Your task to perform on an android device: delete location history Image 0: 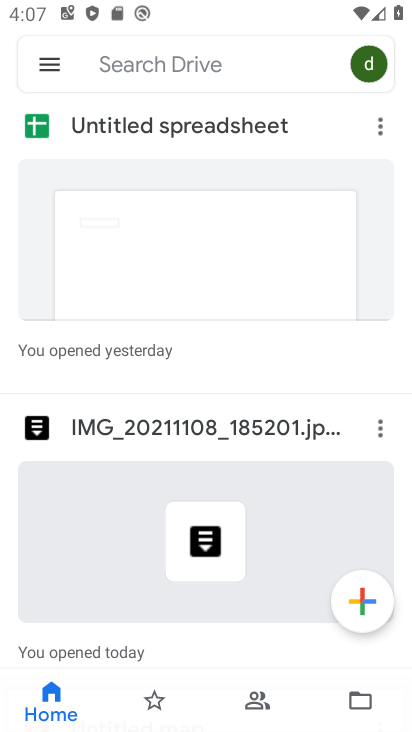
Step 0: press home button
Your task to perform on an android device: delete location history Image 1: 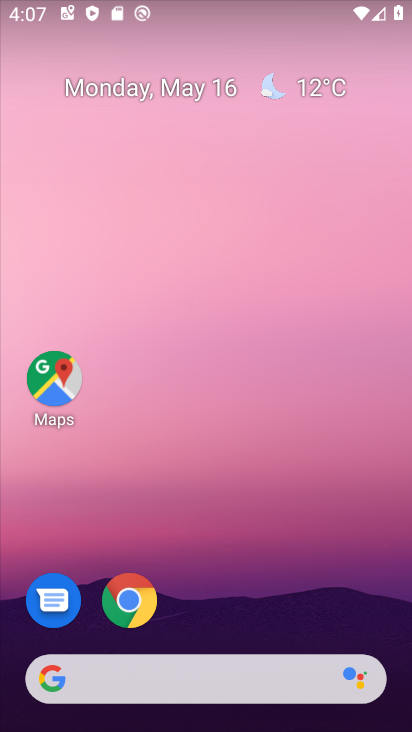
Step 1: drag from (215, 661) to (207, 264)
Your task to perform on an android device: delete location history Image 2: 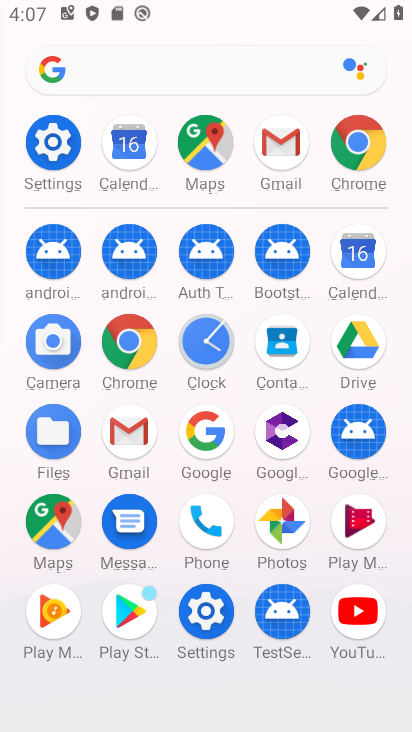
Step 2: click (30, 141)
Your task to perform on an android device: delete location history Image 3: 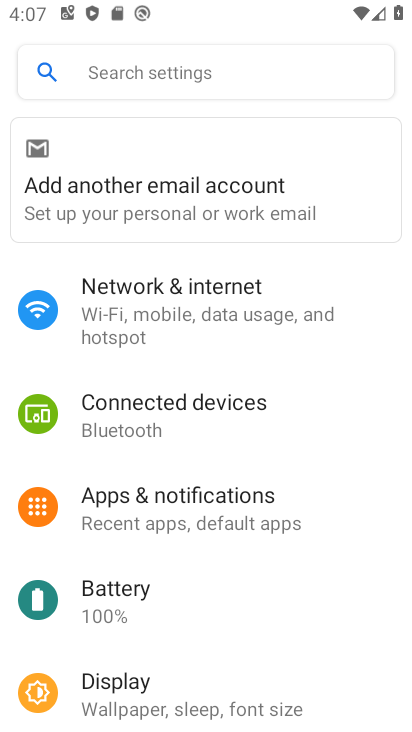
Step 3: drag from (181, 680) to (175, 225)
Your task to perform on an android device: delete location history Image 4: 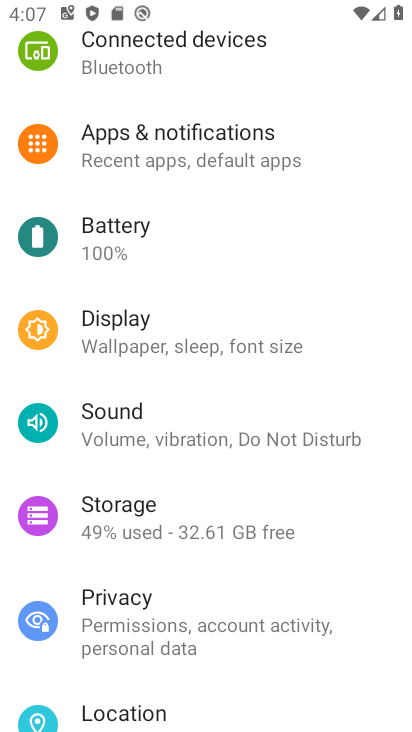
Step 4: drag from (130, 685) to (135, 364)
Your task to perform on an android device: delete location history Image 5: 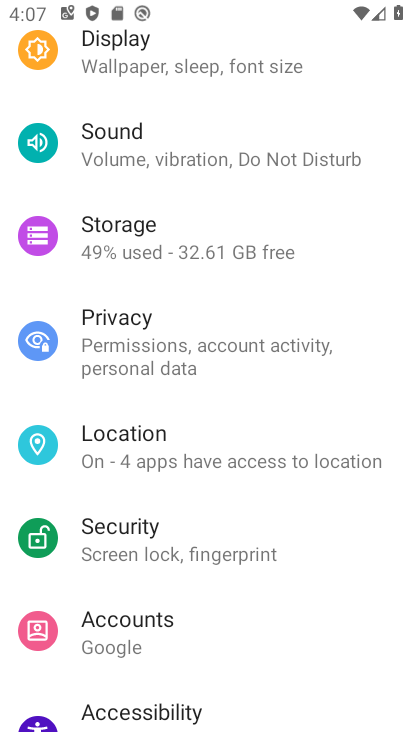
Step 5: click (118, 453)
Your task to perform on an android device: delete location history Image 6: 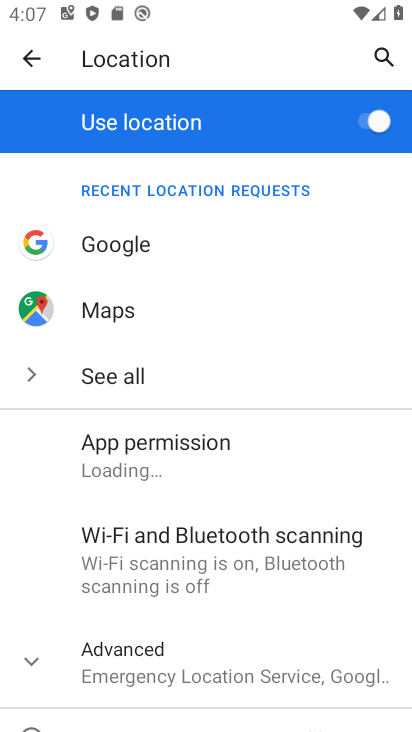
Step 6: click (159, 660)
Your task to perform on an android device: delete location history Image 7: 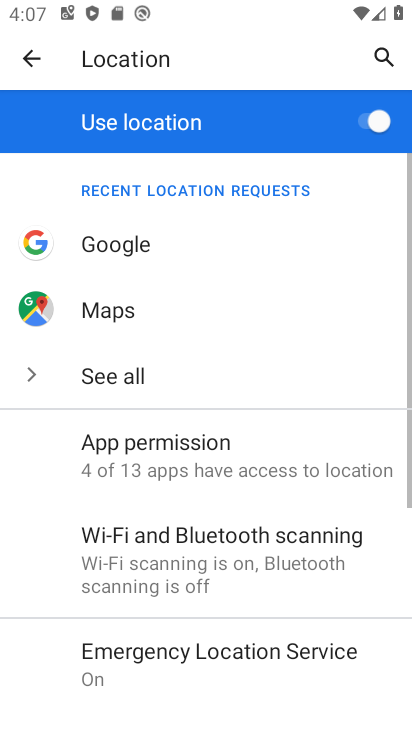
Step 7: drag from (158, 698) to (182, 289)
Your task to perform on an android device: delete location history Image 8: 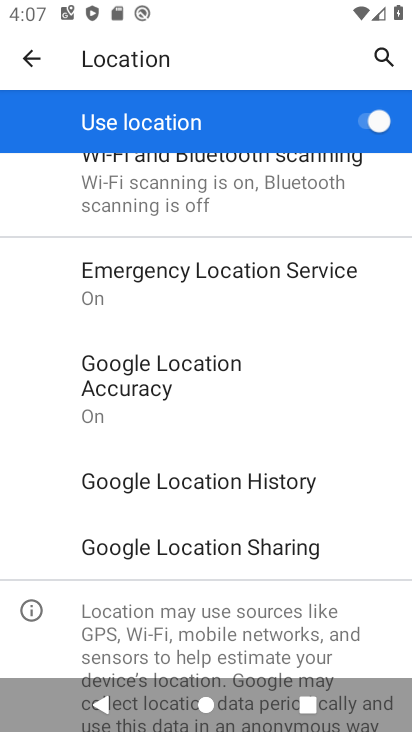
Step 8: drag from (224, 612) to (222, 288)
Your task to perform on an android device: delete location history Image 9: 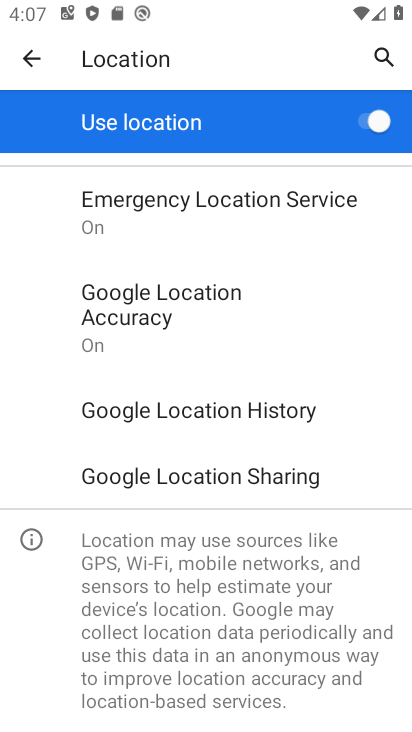
Step 9: click (222, 415)
Your task to perform on an android device: delete location history Image 10: 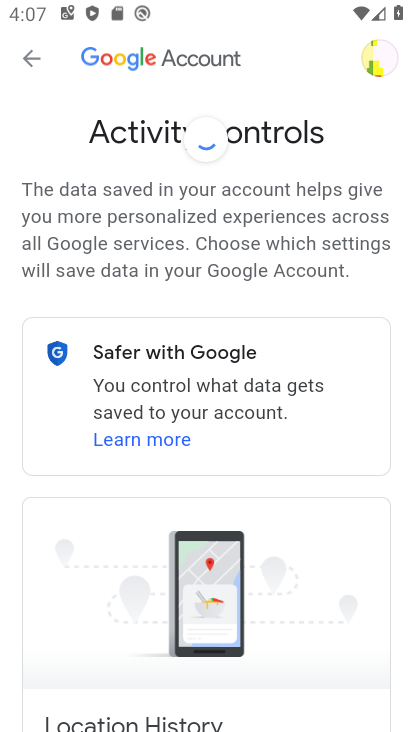
Step 10: drag from (209, 679) to (199, 237)
Your task to perform on an android device: delete location history Image 11: 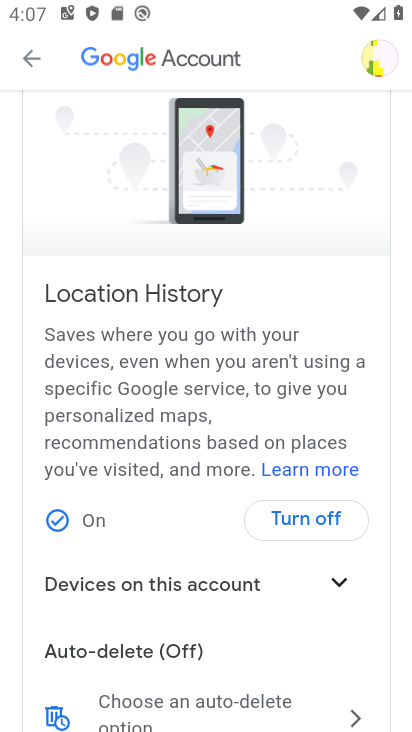
Step 11: drag from (259, 685) to (256, 278)
Your task to perform on an android device: delete location history Image 12: 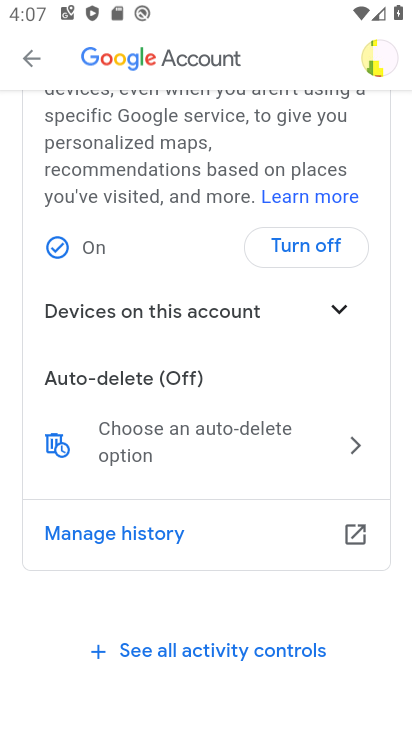
Step 12: click (139, 451)
Your task to perform on an android device: delete location history Image 13: 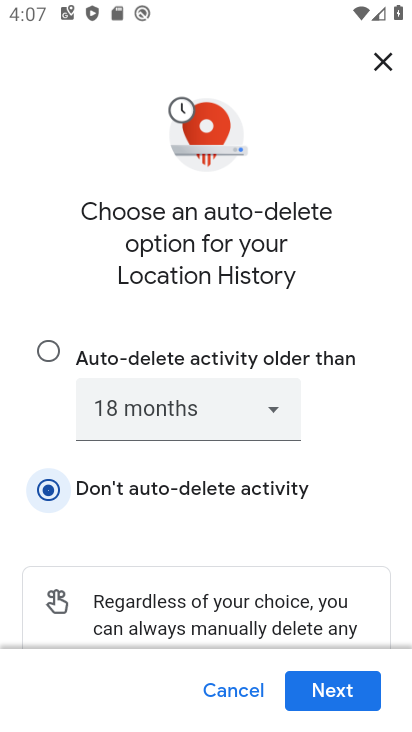
Step 13: click (332, 695)
Your task to perform on an android device: delete location history Image 14: 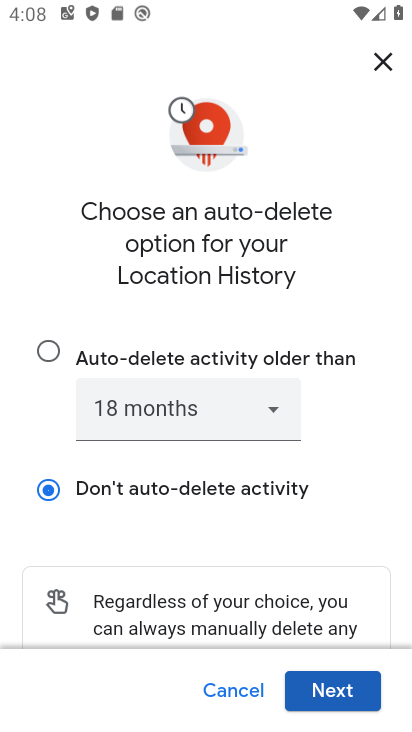
Step 14: click (335, 699)
Your task to perform on an android device: delete location history Image 15: 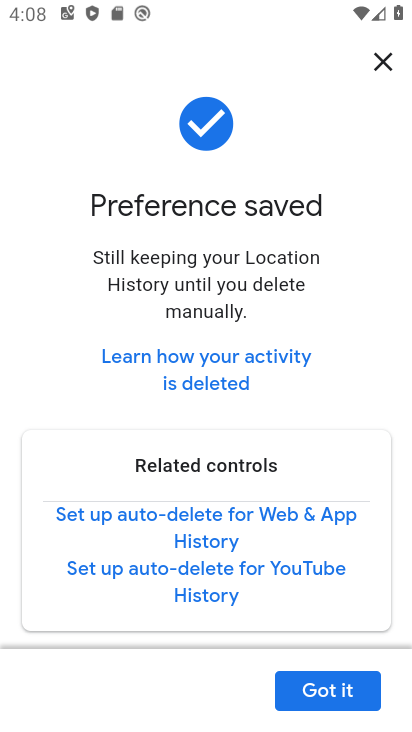
Step 15: click (304, 690)
Your task to perform on an android device: delete location history Image 16: 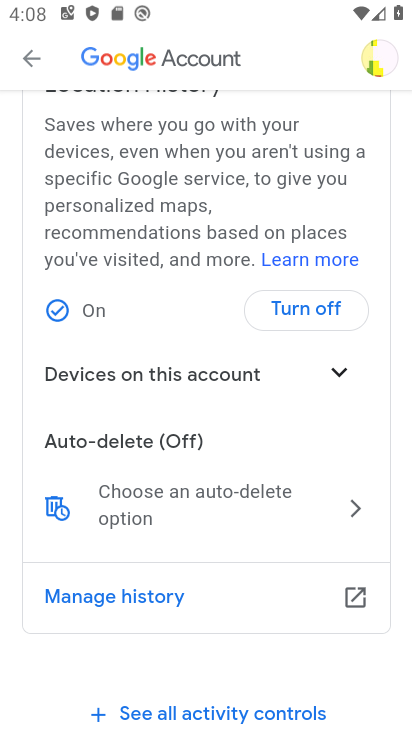
Step 16: task complete